Your task to perform on an android device: star an email in the gmail app Image 0: 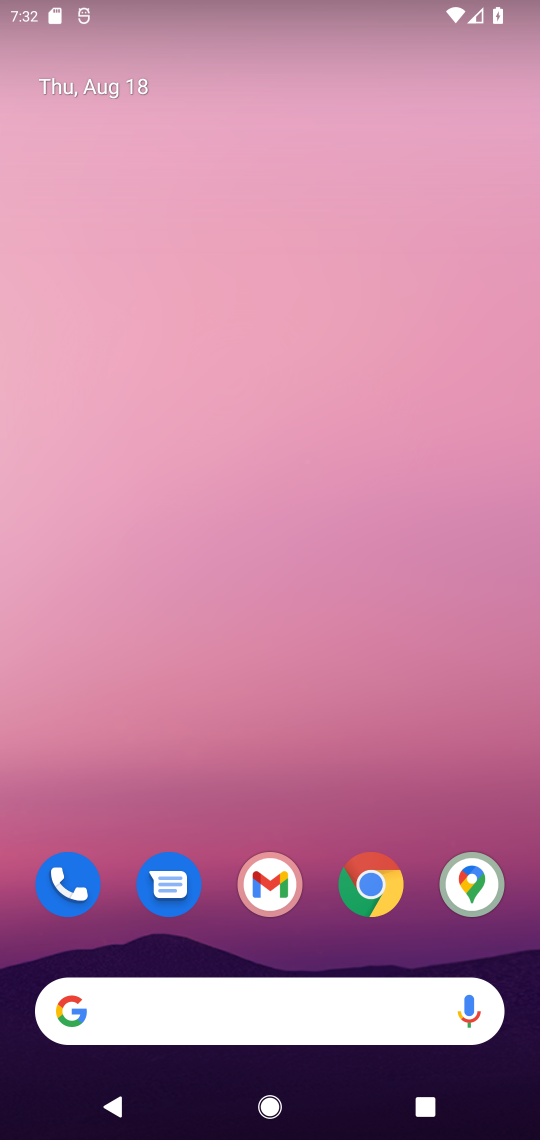
Step 0: click (288, 830)
Your task to perform on an android device: star an email in the gmail app Image 1: 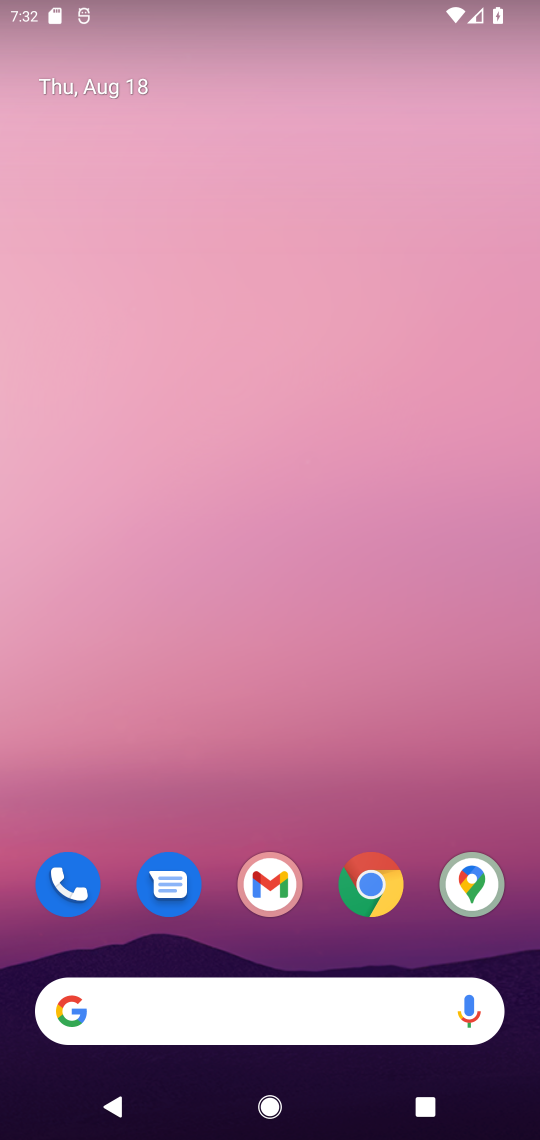
Step 1: click (279, 877)
Your task to perform on an android device: star an email in the gmail app Image 2: 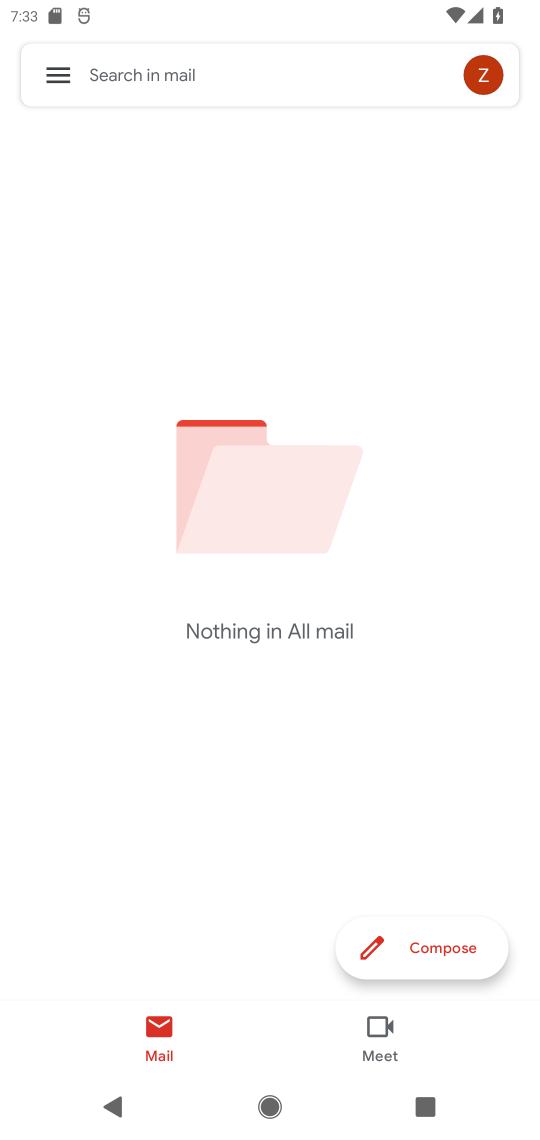
Step 2: click (66, 58)
Your task to perform on an android device: star an email in the gmail app Image 3: 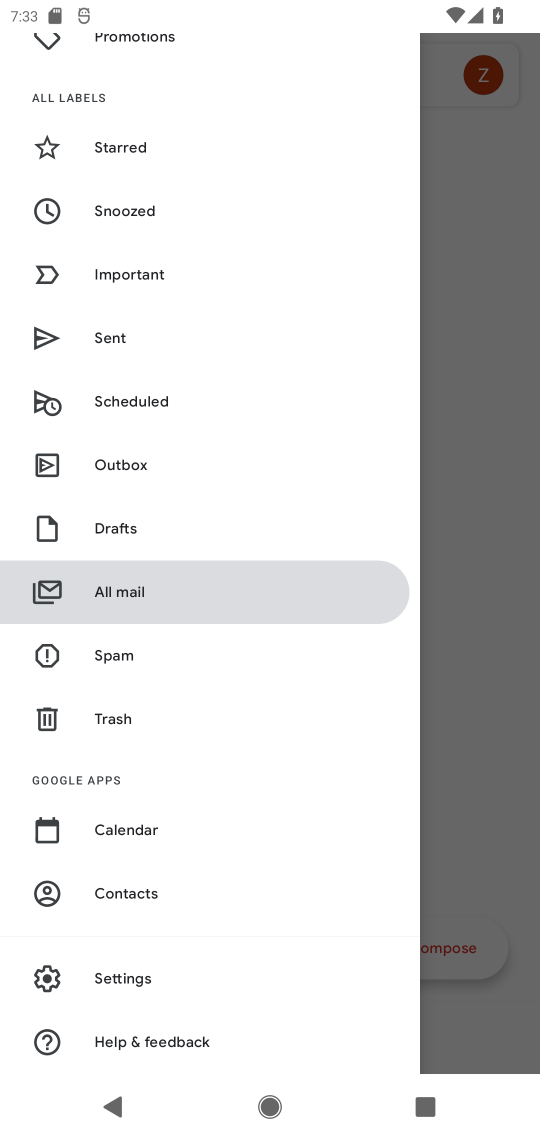
Step 3: task complete